Your task to perform on an android device: Open calendar and show me the first week of next month Image 0: 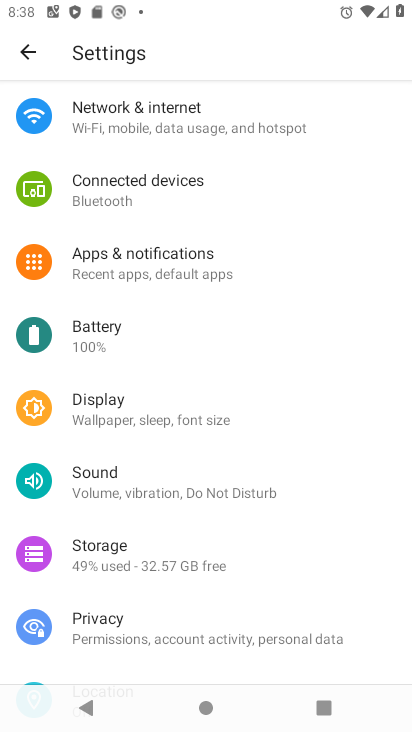
Step 0: press home button
Your task to perform on an android device: Open calendar and show me the first week of next month Image 1: 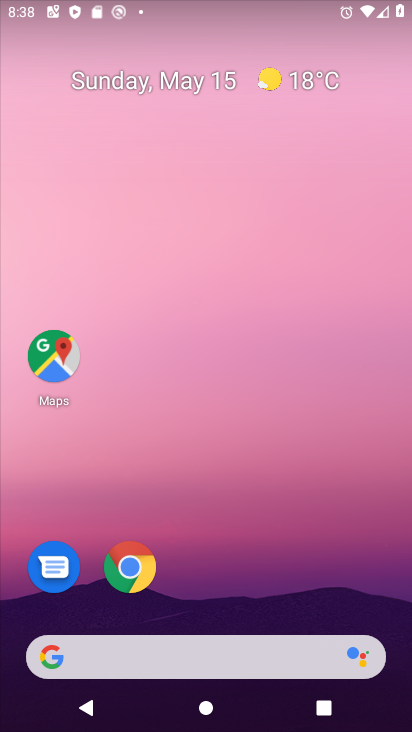
Step 1: drag from (169, 654) to (289, 213)
Your task to perform on an android device: Open calendar and show me the first week of next month Image 2: 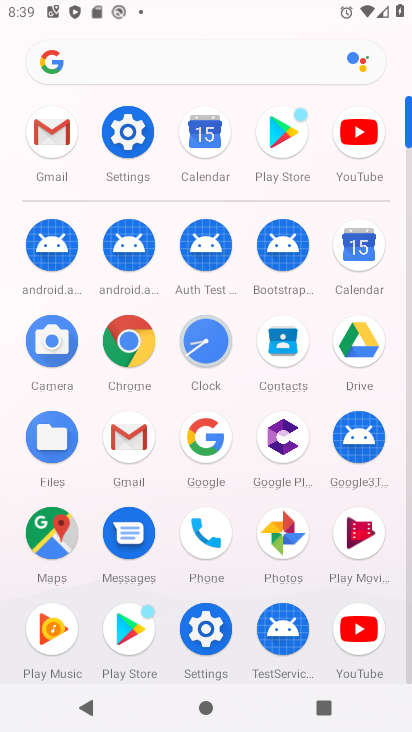
Step 2: click (375, 245)
Your task to perform on an android device: Open calendar and show me the first week of next month Image 3: 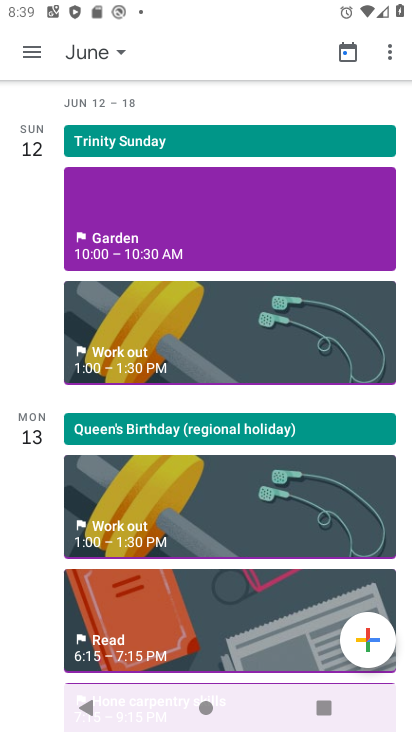
Step 3: click (88, 36)
Your task to perform on an android device: Open calendar and show me the first week of next month Image 4: 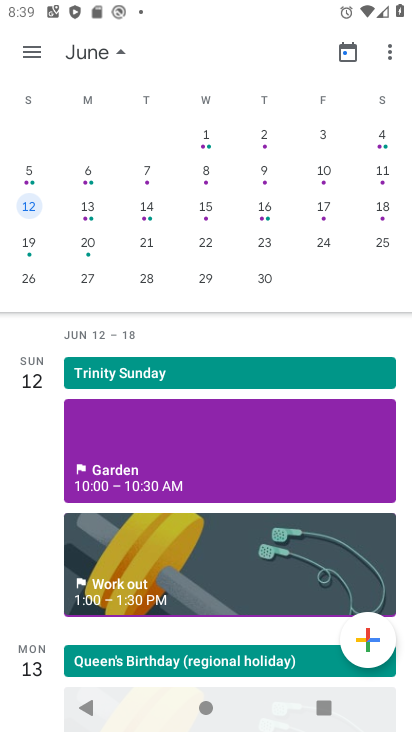
Step 4: click (204, 137)
Your task to perform on an android device: Open calendar and show me the first week of next month Image 5: 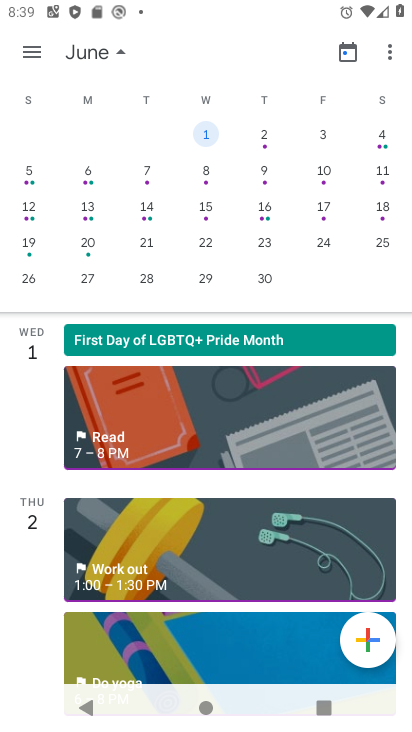
Step 5: task complete